Your task to perform on an android device: Open battery settings Image 0: 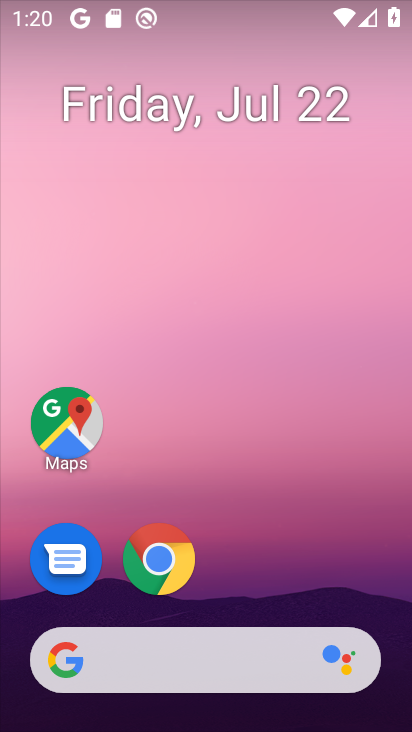
Step 0: drag from (266, 525) to (407, 114)
Your task to perform on an android device: Open battery settings Image 1: 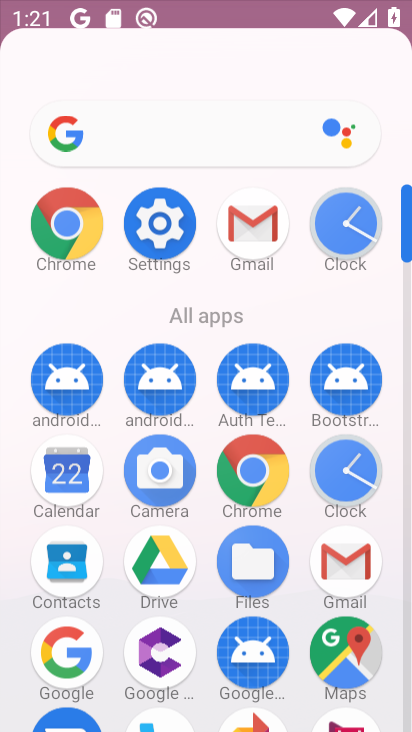
Step 1: click (157, 249)
Your task to perform on an android device: Open battery settings Image 2: 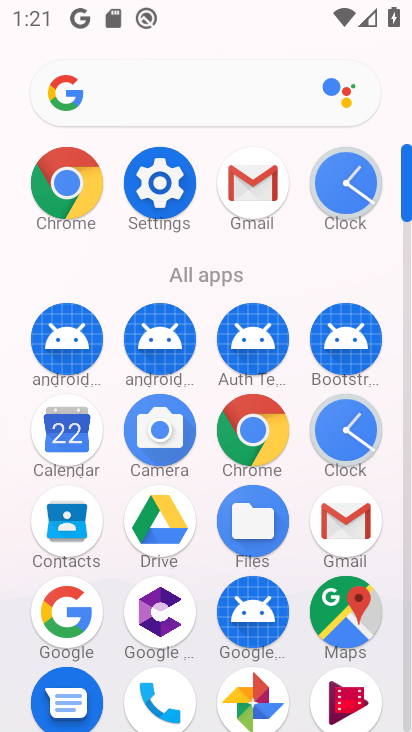
Step 2: click (159, 182)
Your task to perform on an android device: Open battery settings Image 3: 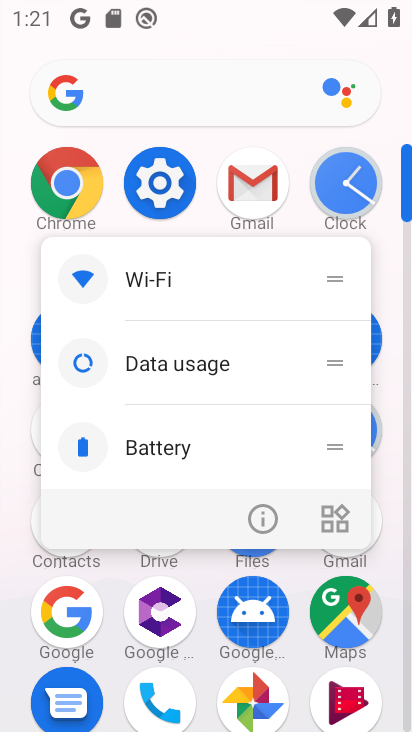
Step 3: click (158, 208)
Your task to perform on an android device: Open battery settings Image 4: 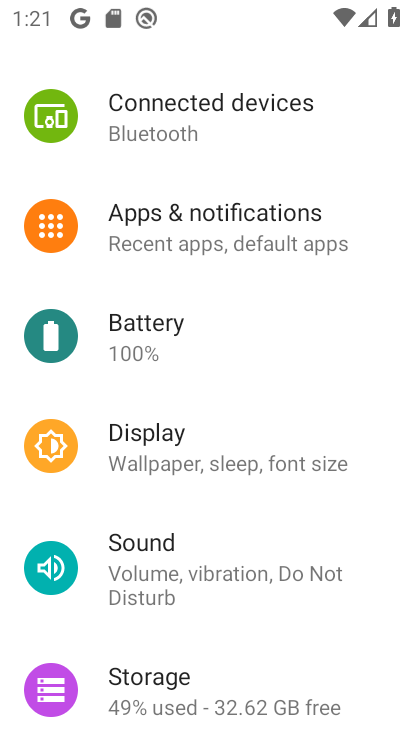
Step 4: click (230, 350)
Your task to perform on an android device: Open battery settings Image 5: 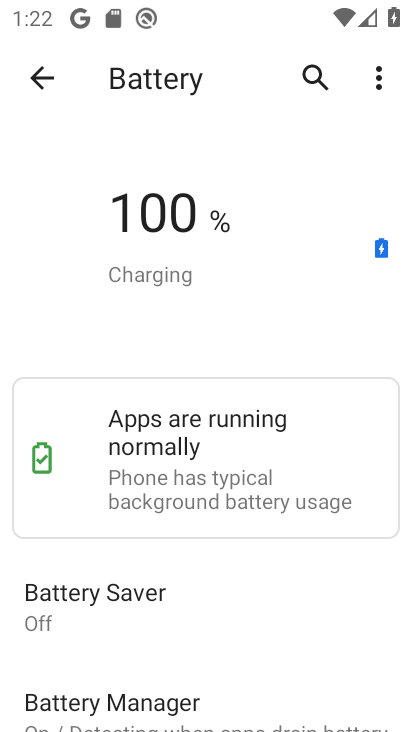
Step 5: task complete